Your task to perform on an android device: Go to Google Image 0: 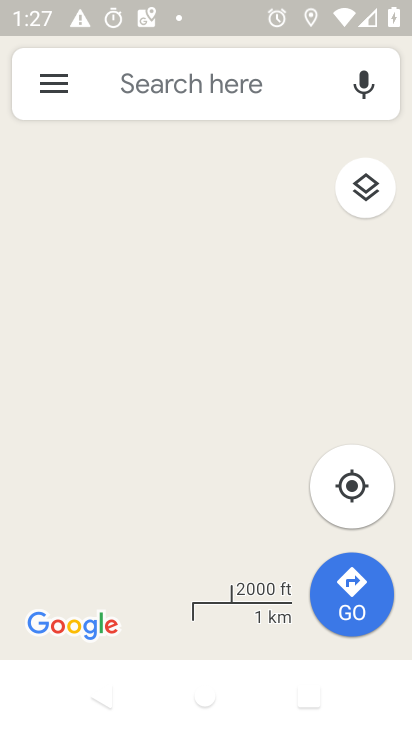
Step 0: click (259, 485)
Your task to perform on an android device: Go to Google Image 1: 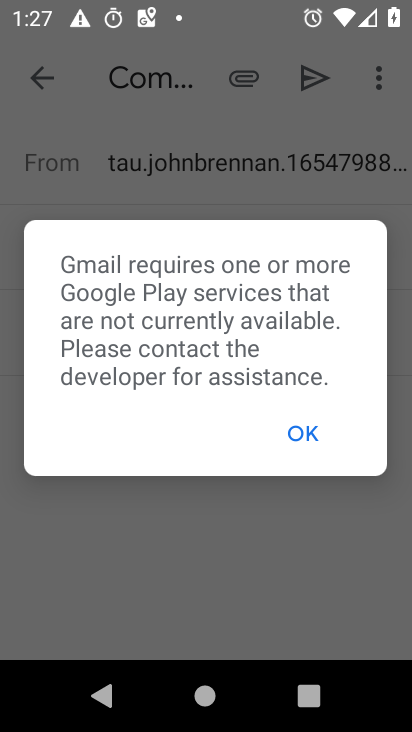
Step 1: click (298, 431)
Your task to perform on an android device: Go to Google Image 2: 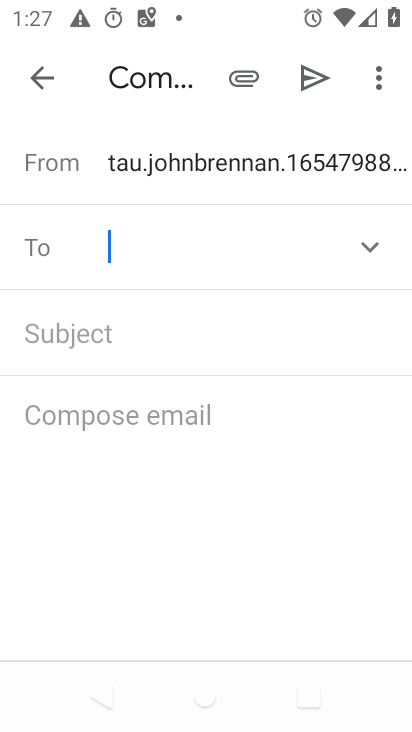
Step 2: press back button
Your task to perform on an android device: Go to Google Image 3: 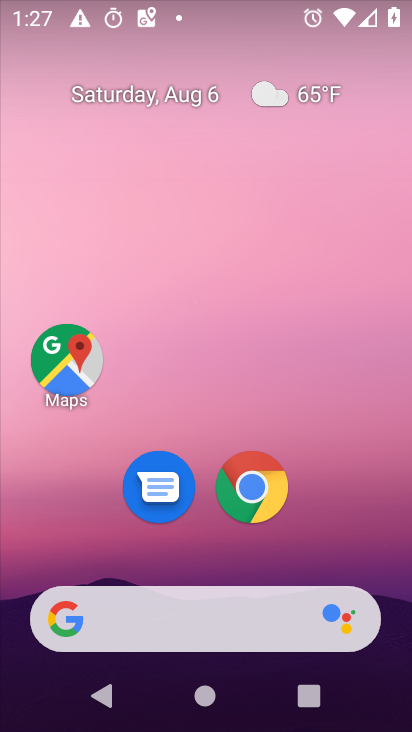
Step 3: drag from (197, 547) to (246, 75)
Your task to perform on an android device: Go to Google Image 4: 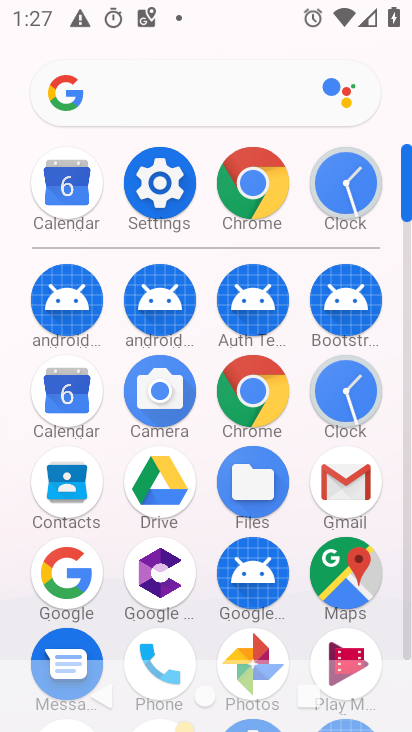
Step 4: click (73, 582)
Your task to perform on an android device: Go to Google Image 5: 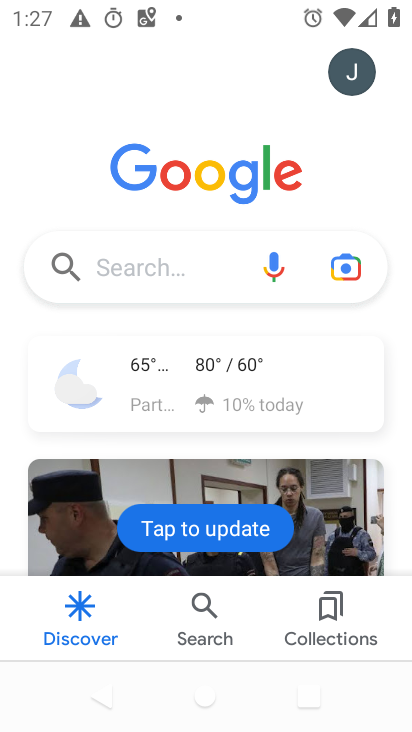
Step 5: task complete